Your task to perform on an android device: move an email to a new category in the gmail app Image 0: 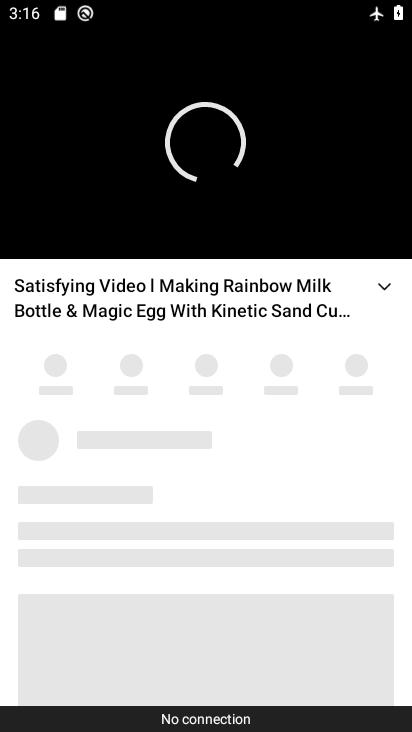
Step 0: press home button
Your task to perform on an android device: move an email to a new category in the gmail app Image 1: 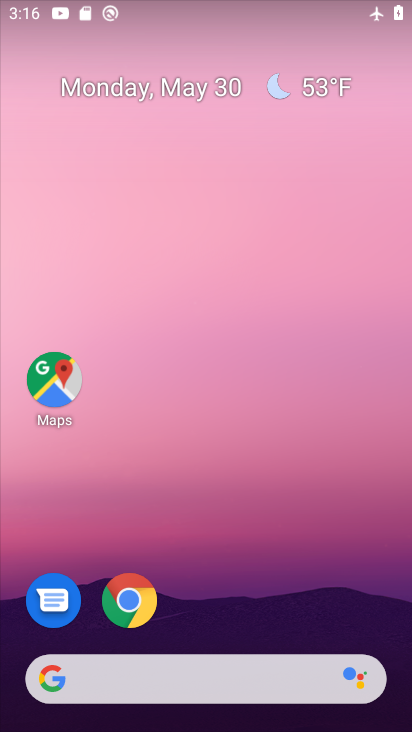
Step 1: drag from (313, 520) to (6, 115)
Your task to perform on an android device: move an email to a new category in the gmail app Image 2: 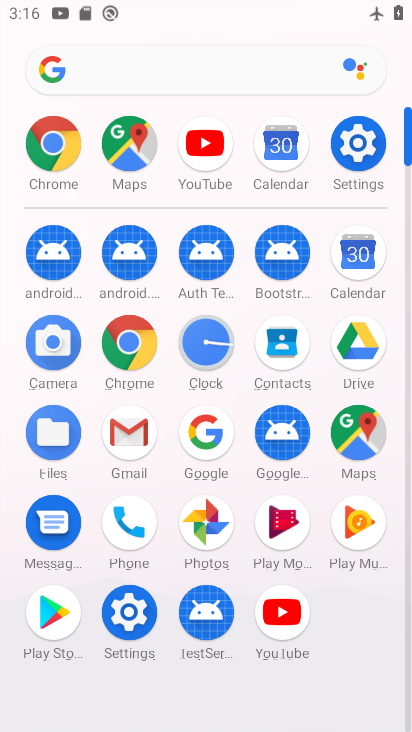
Step 2: click (117, 436)
Your task to perform on an android device: move an email to a new category in the gmail app Image 3: 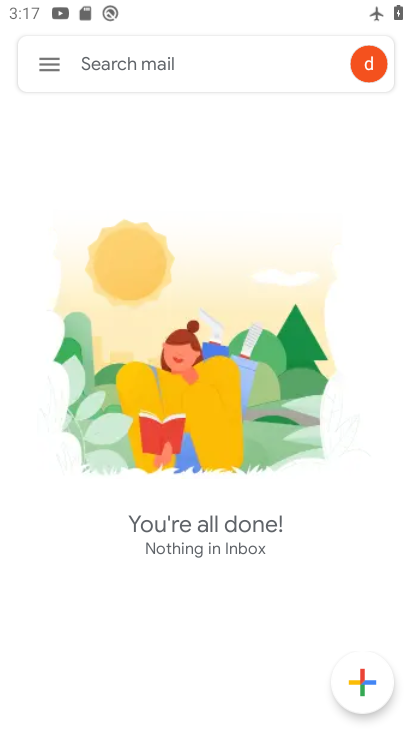
Step 3: click (58, 66)
Your task to perform on an android device: move an email to a new category in the gmail app Image 4: 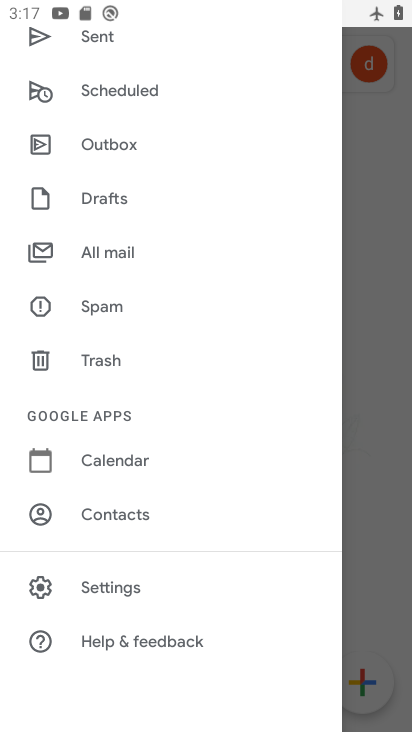
Step 4: drag from (159, 316) to (119, 718)
Your task to perform on an android device: move an email to a new category in the gmail app Image 5: 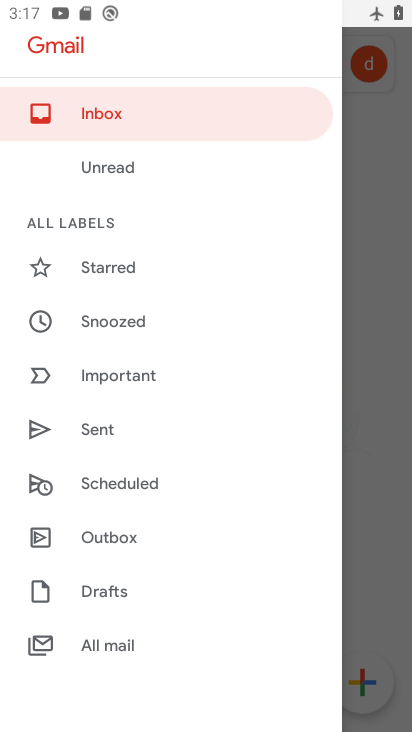
Step 5: click (96, 102)
Your task to perform on an android device: move an email to a new category in the gmail app Image 6: 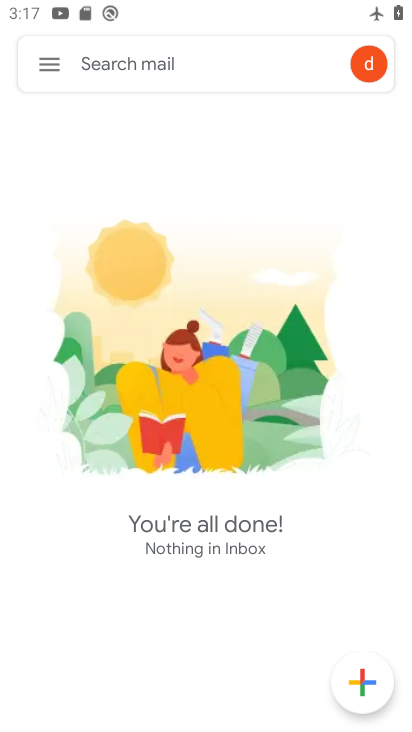
Step 6: task complete